Your task to perform on an android device: Is it going to rain today? Image 0: 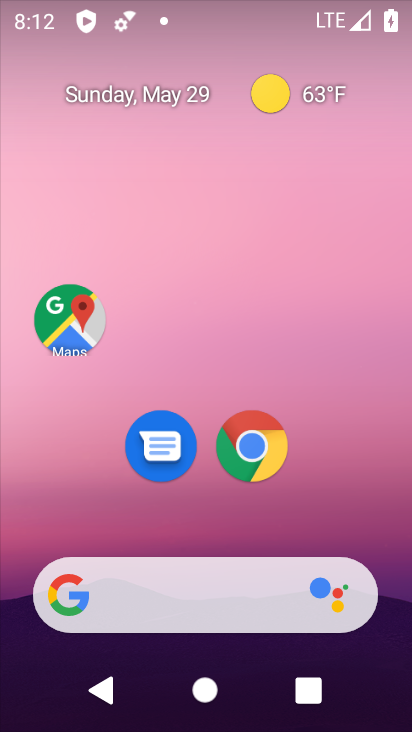
Step 0: drag from (208, 527) to (210, 133)
Your task to perform on an android device: Is it going to rain today? Image 1: 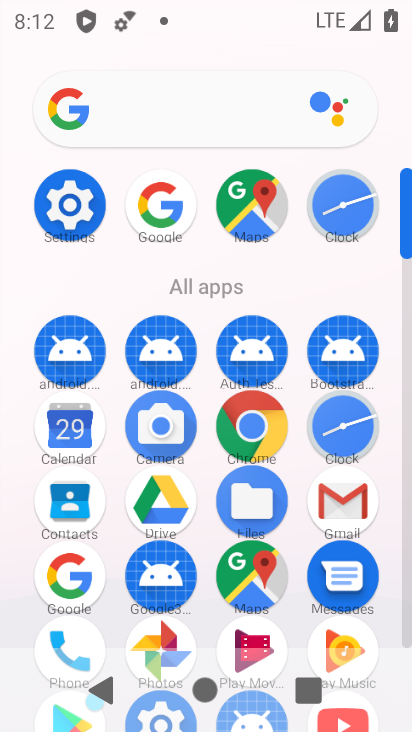
Step 1: click (160, 207)
Your task to perform on an android device: Is it going to rain today? Image 2: 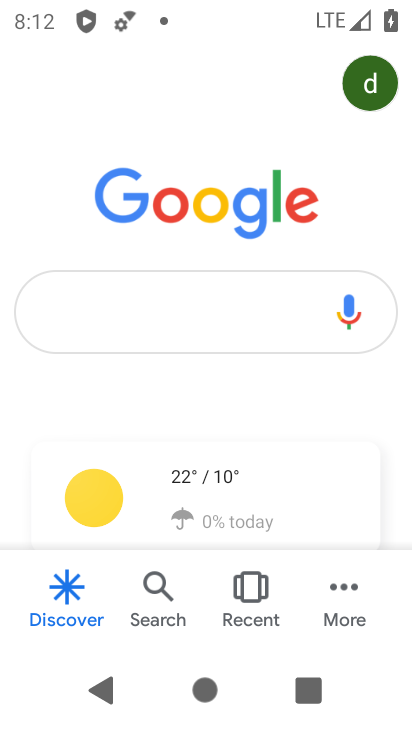
Step 2: click (189, 470)
Your task to perform on an android device: Is it going to rain today? Image 3: 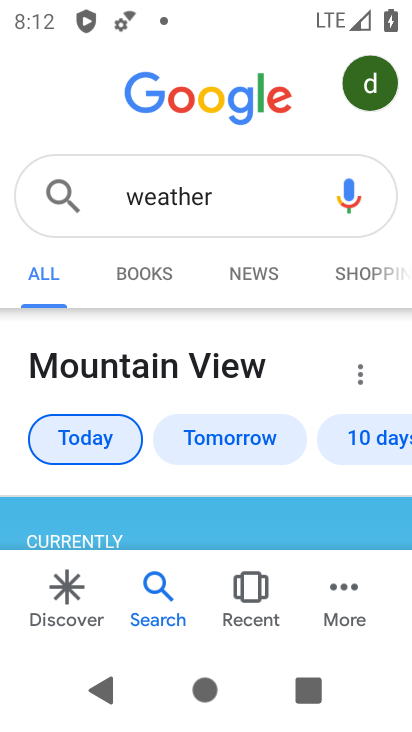
Step 3: task complete